Your task to perform on an android device: Search for "razer deathadder" on newegg, select the first entry, add it to the cart, then select checkout. Image 0: 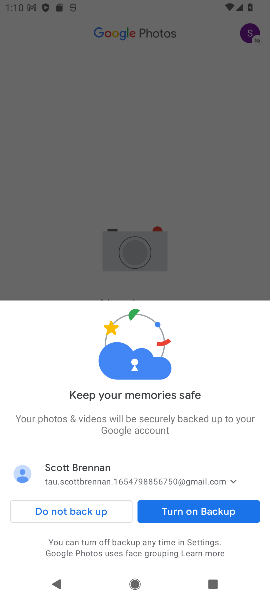
Step 0: press home button
Your task to perform on an android device: Search for "razer deathadder" on newegg, select the first entry, add it to the cart, then select checkout. Image 1: 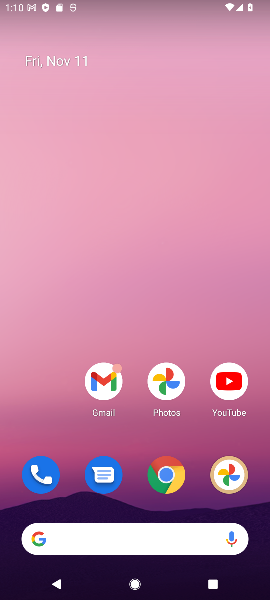
Step 1: drag from (106, 449) to (141, 1)
Your task to perform on an android device: Search for "razer deathadder" on newegg, select the first entry, add it to the cart, then select checkout. Image 2: 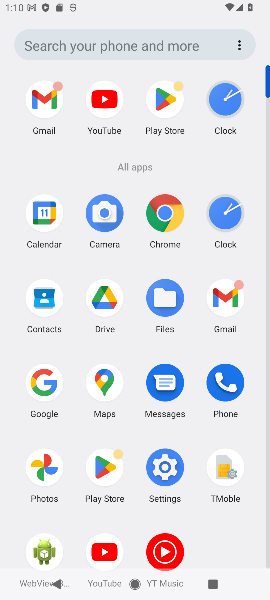
Step 2: click (161, 218)
Your task to perform on an android device: Search for "razer deathadder" on newegg, select the first entry, add it to the cart, then select checkout. Image 3: 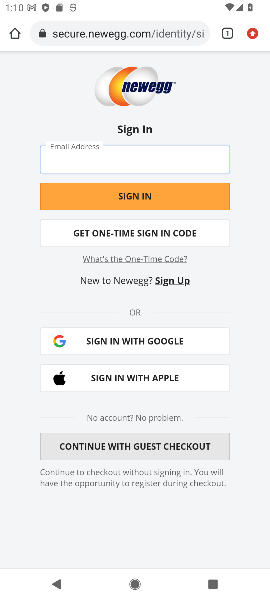
Step 3: press back button
Your task to perform on an android device: Search for "razer deathadder" on newegg, select the first entry, add it to the cart, then select checkout. Image 4: 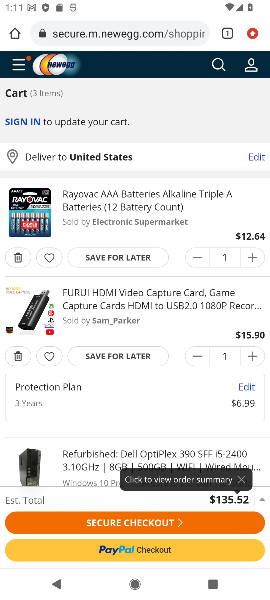
Step 4: click (224, 62)
Your task to perform on an android device: Search for "razer deathadder" on newegg, select the first entry, add it to the cart, then select checkout. Image 5: 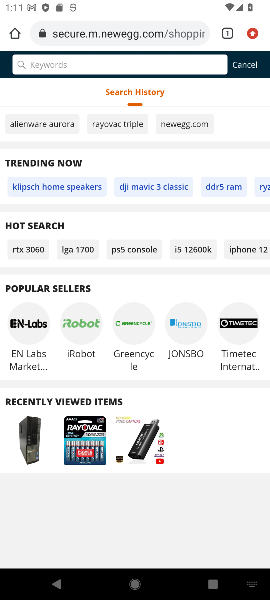
Step 5: type "razer deathadder"
Your task to perform on an android device: Search for "razer deathadder" on newegg, select the first entry, add it to the cart, then select checkout. Image 6: 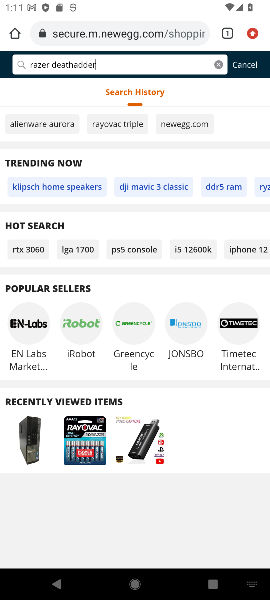
Step 6: press enter
Your task to perform on an android device: Search for "razer deathadder" on newegg, select the first entry, add it to the cart, then select checkout. Image 7: 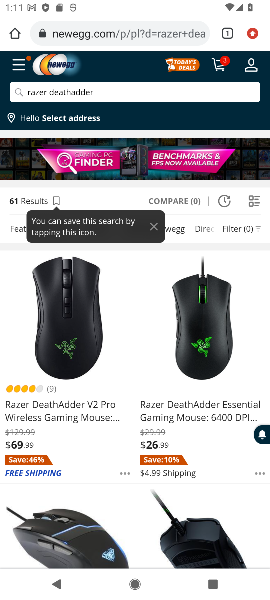
Step 7: click (66, 405)
Your task to perform on an android device: Search for "razer deathadder" on newegg, select the first entry, add it to the cart, then select checkout. Image 8: 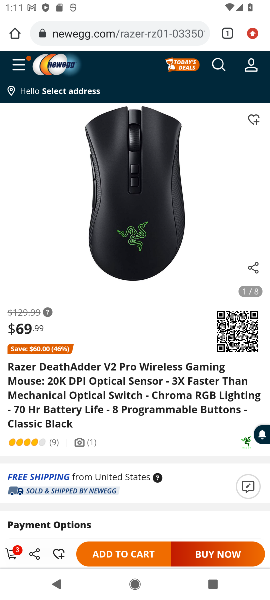
Step 8: click (133, 556)
Your task to perform on an android device: Search for "razer deathadder" on newegg, select the first entry, add it to the cart, then select checkout. Image 9: 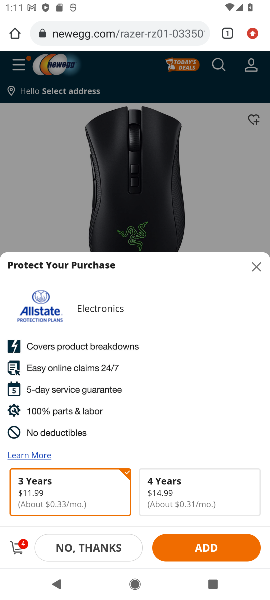
Step 9: click (213, 550)
Your task to perform on an android device: Search for "razer deathadder" on newegg, select the first entry, add it to the cart, then select checkout. Image 10: 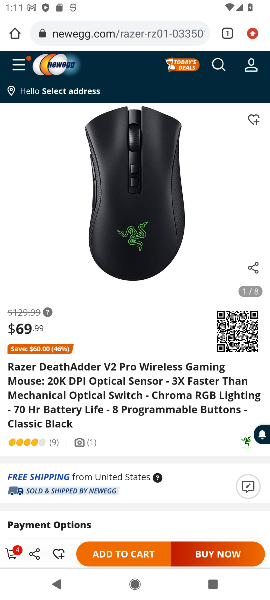
Step 10: click (9, 547)
Your task to perform on an android device: Search for "razer deathadder" on newegg, select the first entry, add it to the cart, then select checkout. Image 11: 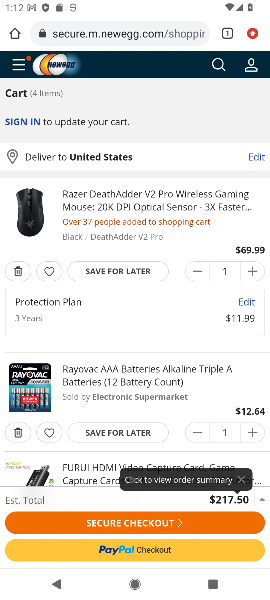
Step 11: click (129, 519)
Your task to perform on an android device: Search for "razer deathadder" on newegg, select the first entry, add it to the cart, then select checkout. Image 12: 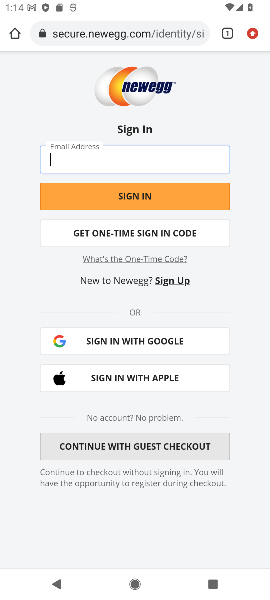
Step 12: task complete